Your task to perform on an android device: Open wifi settings Image 0: 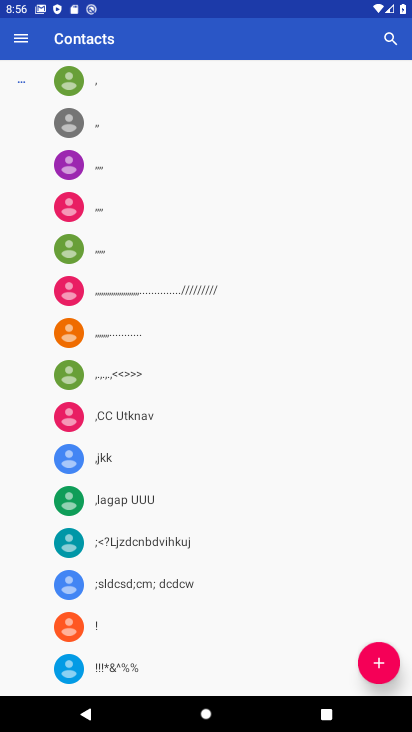
Step 0: press back button
Your task to perform on an android device: Open wifi settings Image 1: 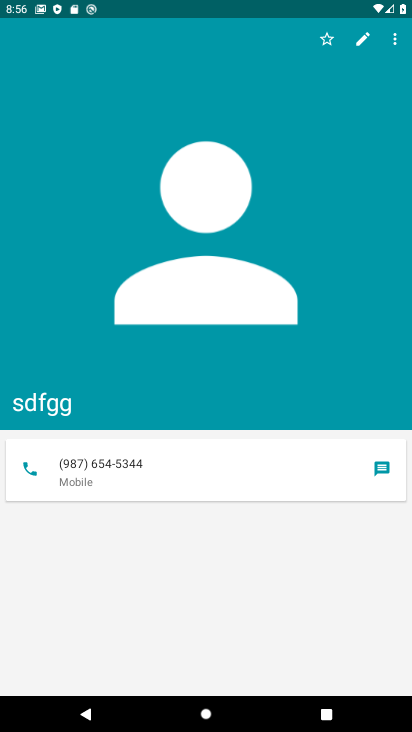
Step 1: press back button
Your task to perform on an android device: Open wifi settings Image 2: 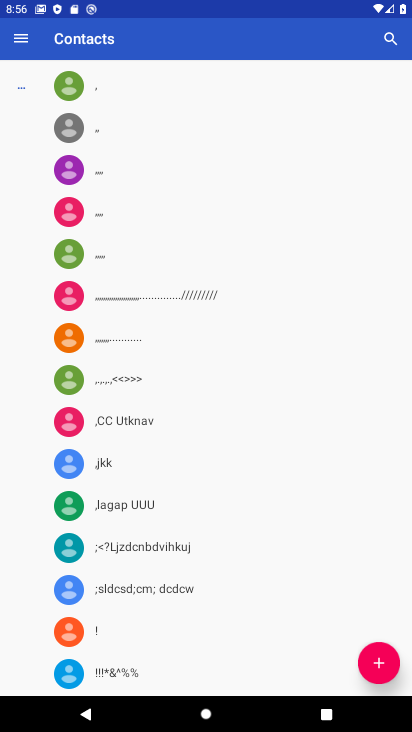
Step 2: press home button
Your task to perform on an android device: Open wifi settings Image 3: 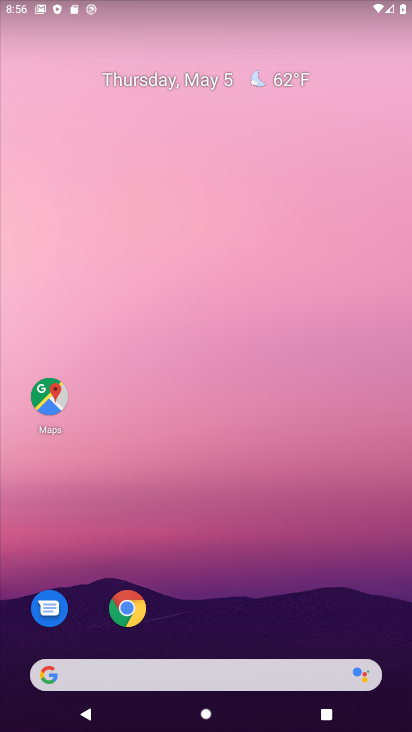
Step 3: drag from (310, 586) to (203, 16)
Your task to perform on an android device: Open wifi settings Image 4: 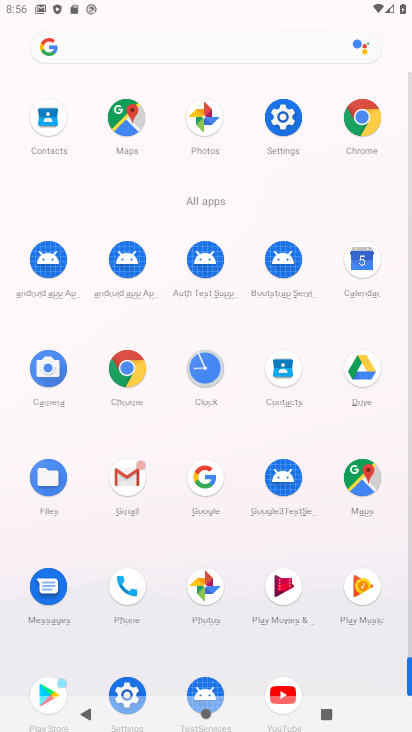
Step 4: click (281, 111)
Your task to perform on an android device: Open wifi settings Image 5: 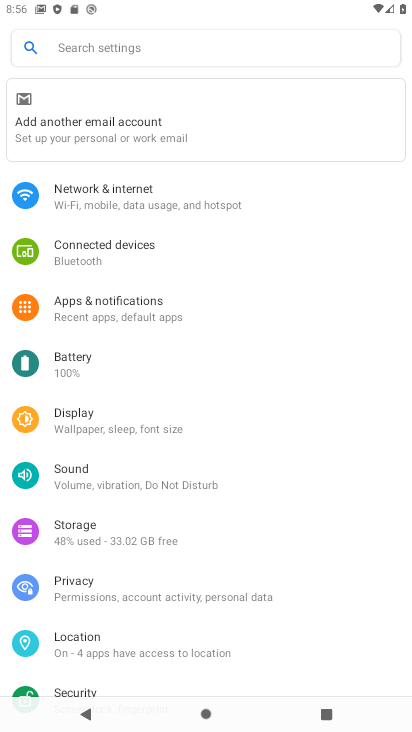
Step 5: click (181, 190)
Your task to perform on an android device: Open wifi settings Image 6: 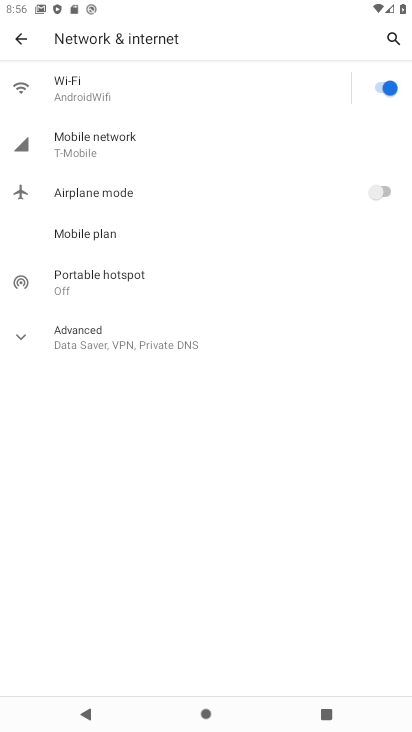
Step 6: click (123, 97)
Your task to perform on an android device: Open wifi settings Image 7: 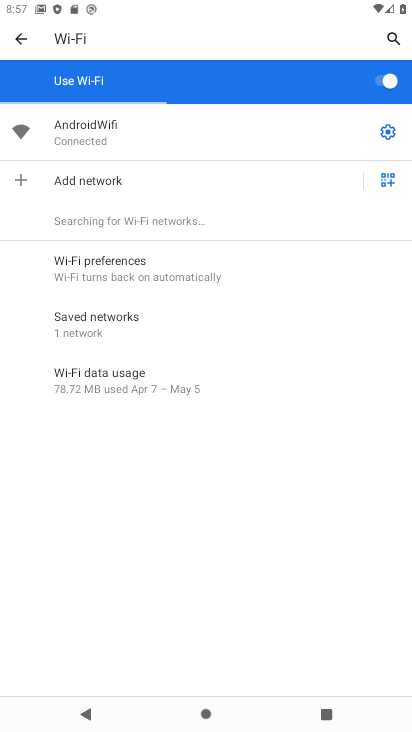
Step 7: task complete